Your task to perform on an android device: Open Chrome and go to settings Image 0: 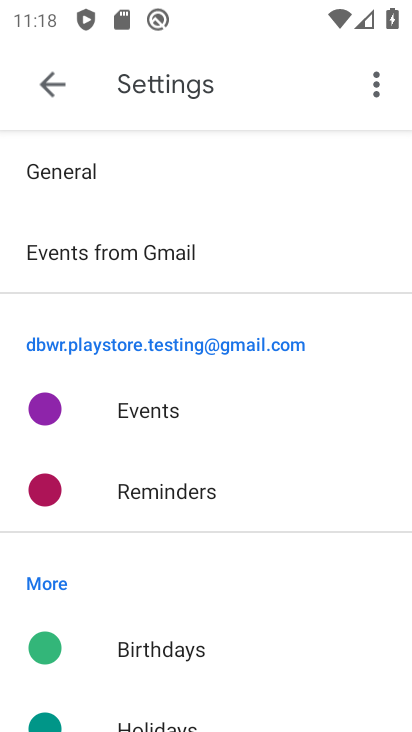
Step 0: press home button
Your task to perform on an android device: Open Chrome and go to settings Image 1: 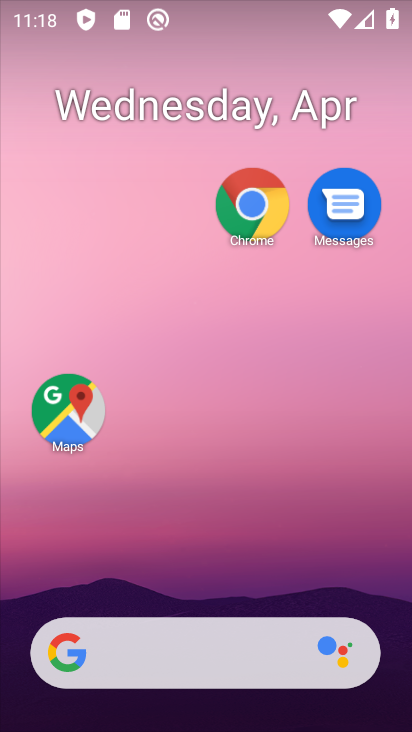
Step 1: drag from (199, 590) to (221, 25)
Your task to perform on an android device: Open Chrome and go to settings Image 2: 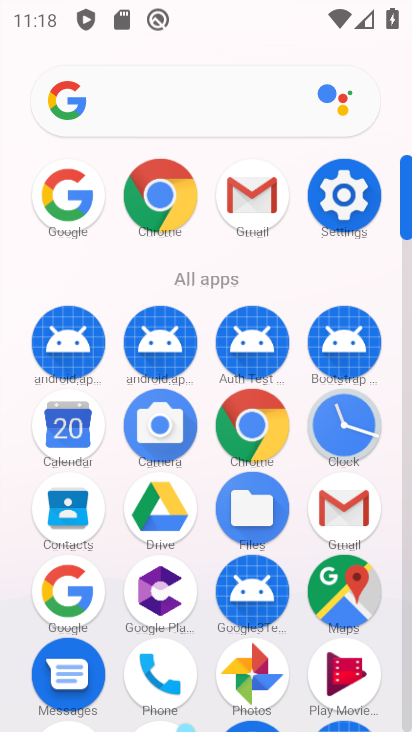
Step 2: click (234, 410)
Your task to perform on an android device: Open Chrome and go to settings Image 3: 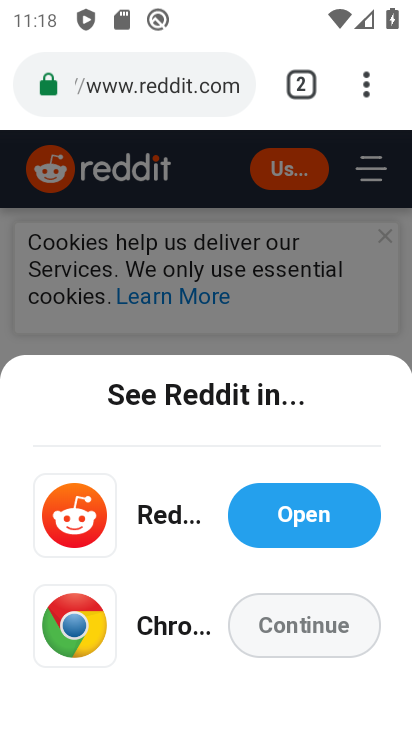
Step 3: task complete